Your task to perform on an android device: Open network settings Image 0: 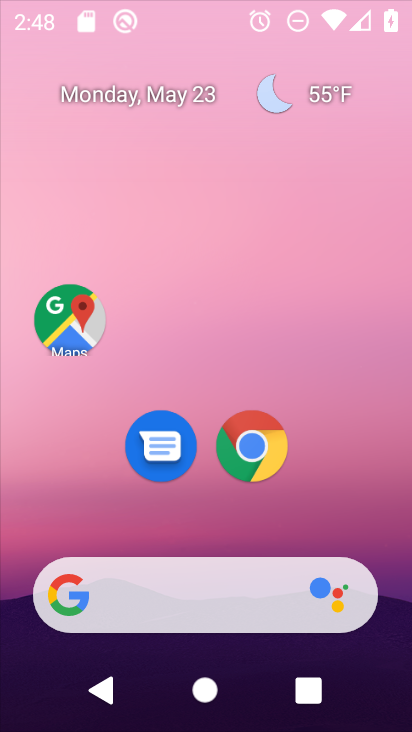
Step 0: click (206, 165)
Your task to perform on an android device: Open network settings Image 1: 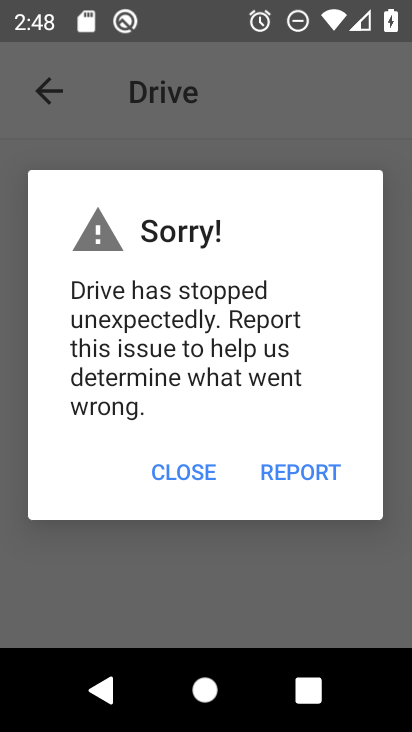
Step 1: press home button
Your task to perform on an android device: Open network settings Image 2: 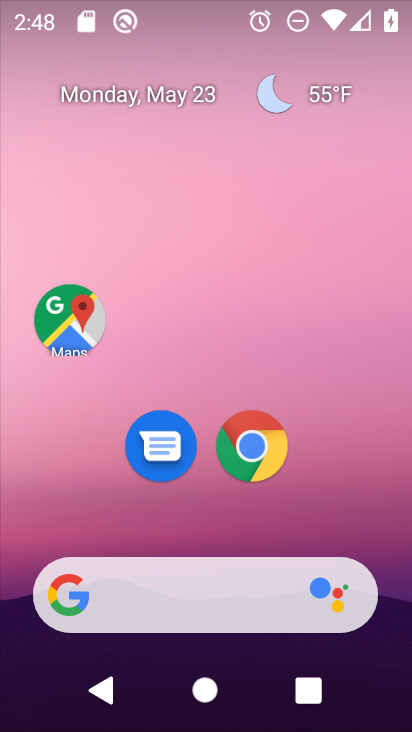
Step 2: drag from (214, 526) to (182, 138)
Your task to perform on an android device: Open network settings Image 3: 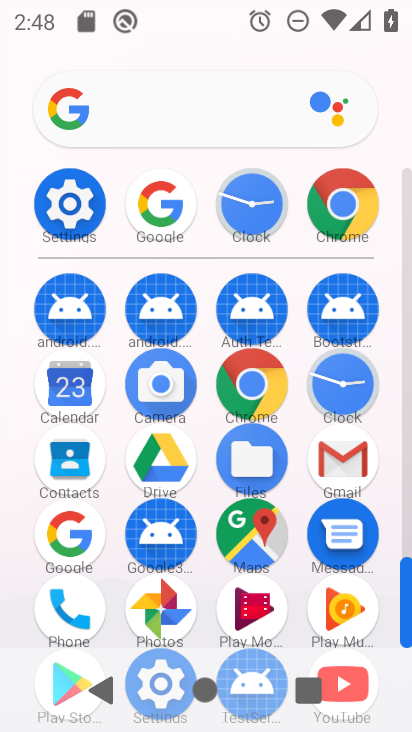
Step 3: click (79, 198)
Your task to perform on an android device: Open network settings Image 4: 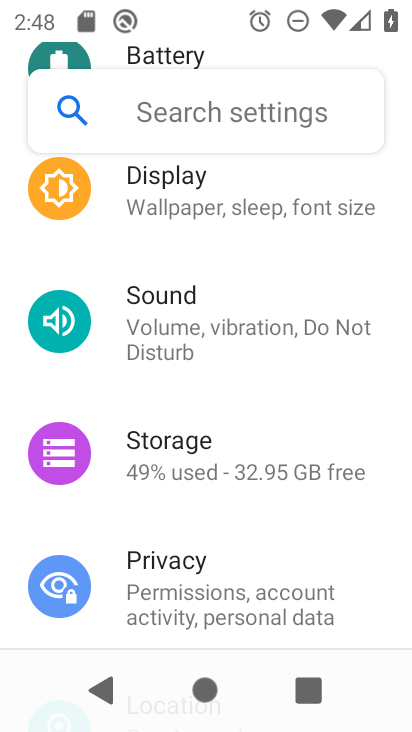
Step 4: drag from (240, 546) to (216, 482)
Your task to perform on an android device: Open network settings Image 5: 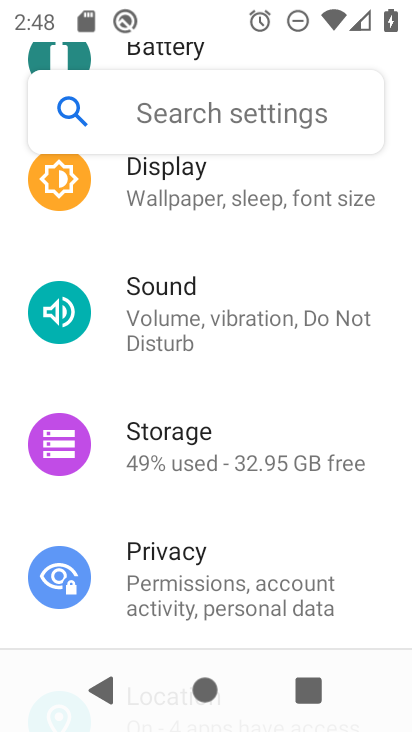
Step 5: drag from (223, 207) to (244, 473)
Your task to perform on an android device: Open network settings Image 6: 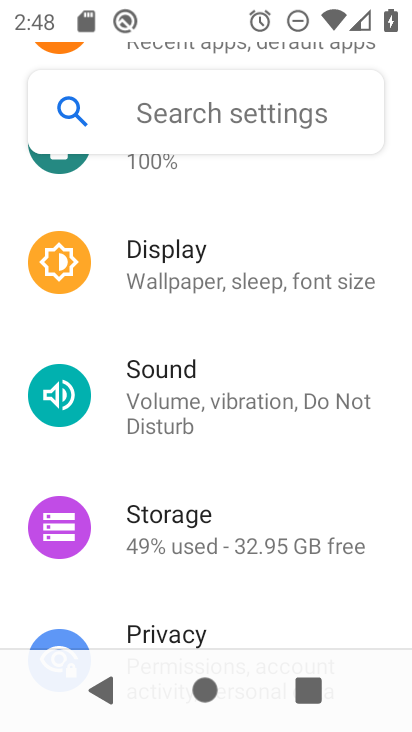
Step 6: drag from (245, 252) to (248, 481)
Your task to perform on an android device: Open network settings Image 7: 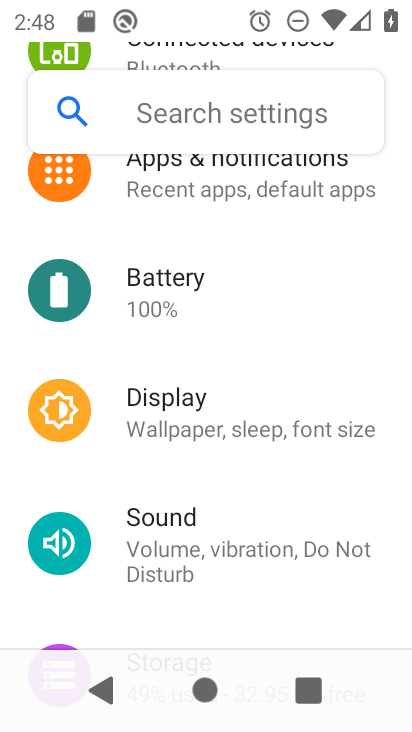
Step 7: drag from (244, 222) to (270, 479)
Your task to perform on an android device: Open network settings Image 8: 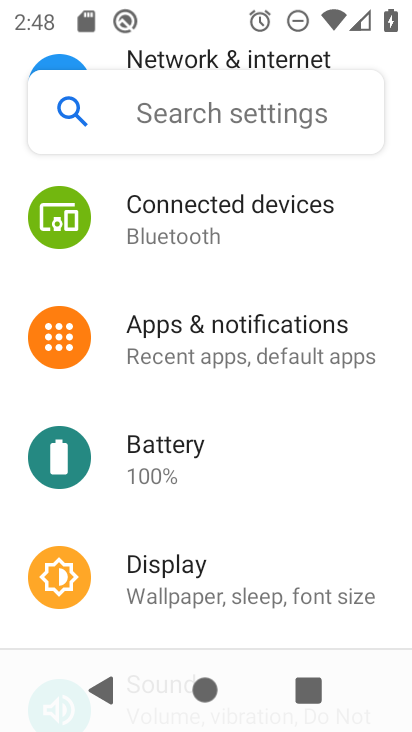
Step 8: drag from (238, 240) to (248, 453)
Your task to perform on an android device: Open network settings Image 9: 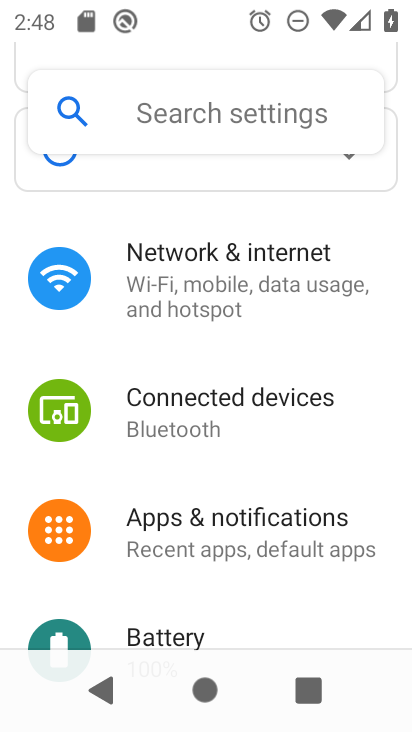
Step 9: click (227, 267)
Your task to perform on an android device: Open network settings Image 10: 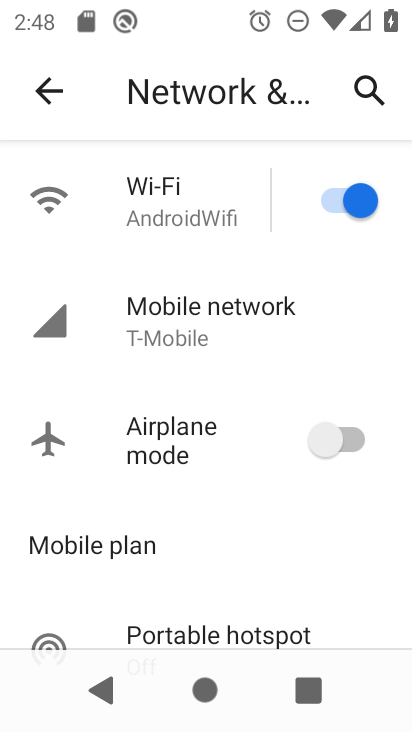
Step 10: click (208, 303)
Your task to perform on an android device: Open network settings Image 11: 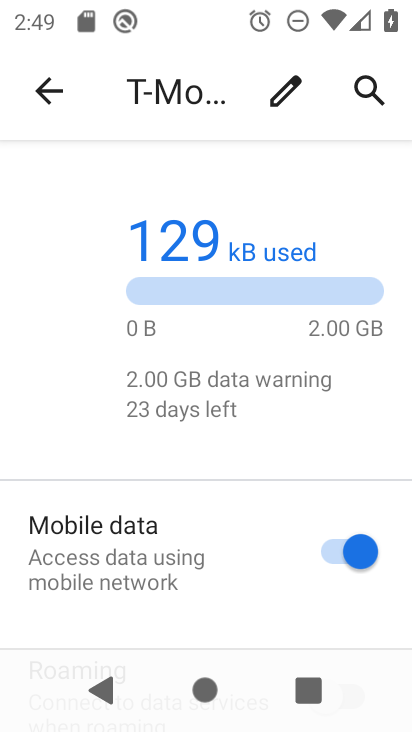
Step 11: task complete